Your task to perform on an android device: Open maps Image 0: 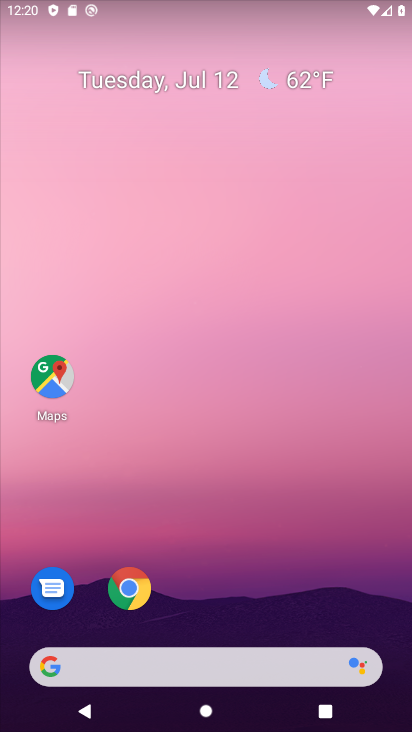
Step 0: drag from (250, 706) to (128, 0)
Your task to perform on an android device: Open maps Image 1: 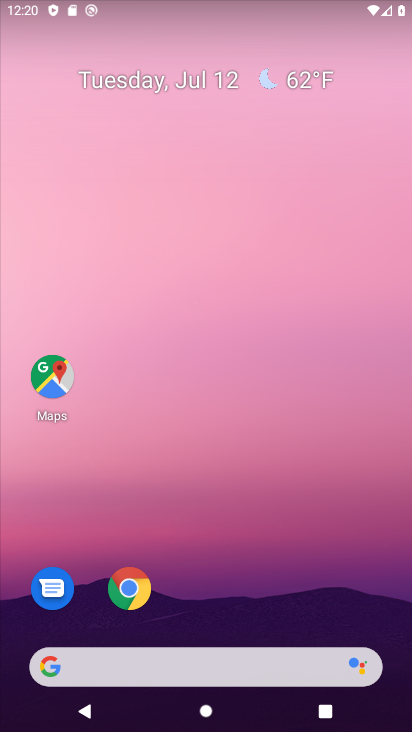
Step 1: click (62, 387)
Your task to perform on an android device: Open maps Image 2: 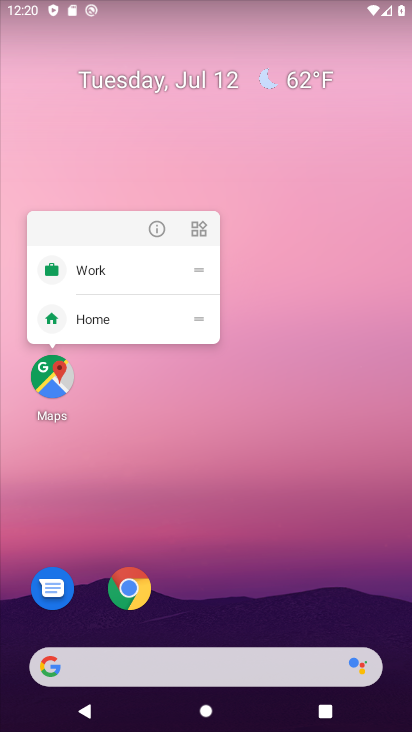
Step 2: click (59, 387)
Your task to perform on an android device: Open maps Image 3: 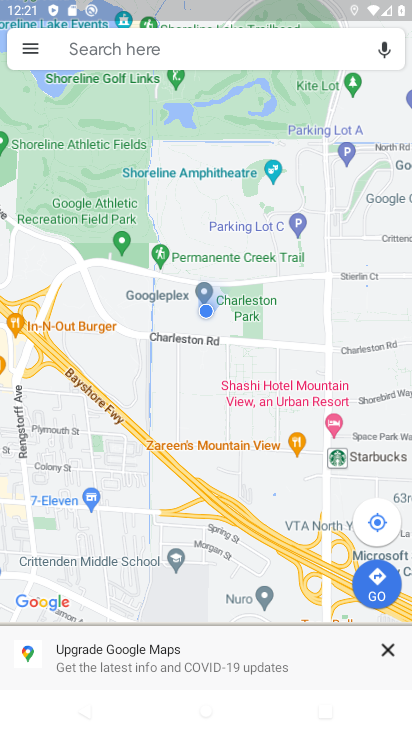
Step 3: task complete